Your task to perform on an android device: toggle wifi Image 0: 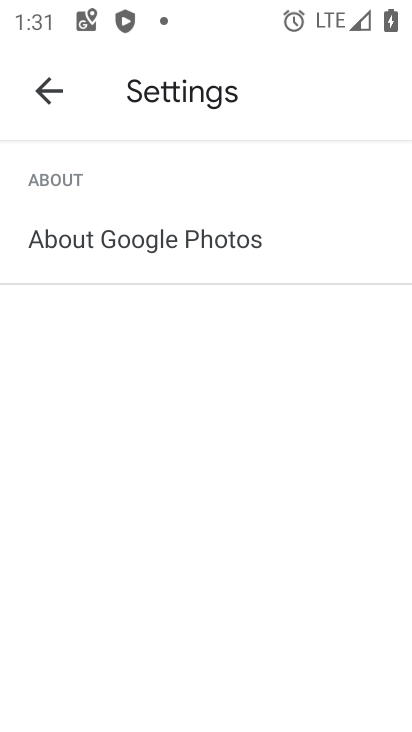
Step 0: press home button
Your task to perform on an android device: toggle wifi Image 1: 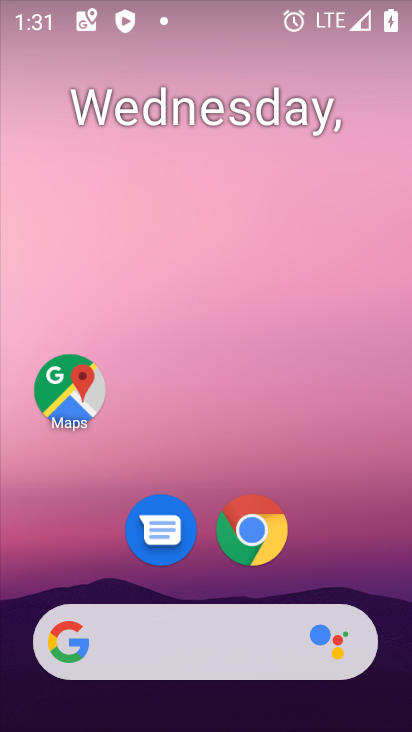
Step 1: drag from (330, 526) to (330, 137)
Your task to perform on an android device: toggle wifi Image 2: 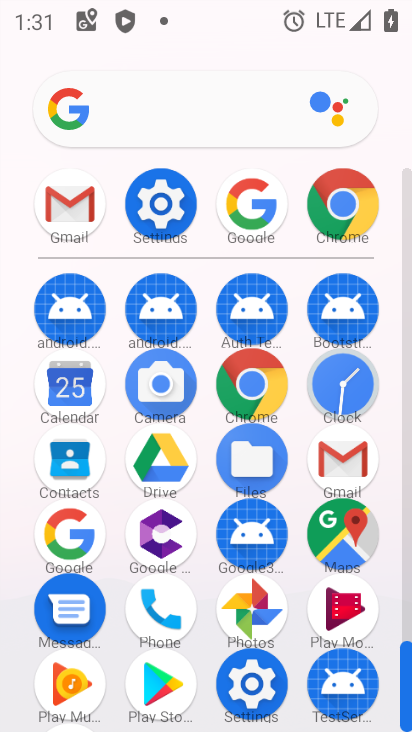
Step 2: click (195, 219)
Your task to perform on an android device: toggle wifi Image 3: 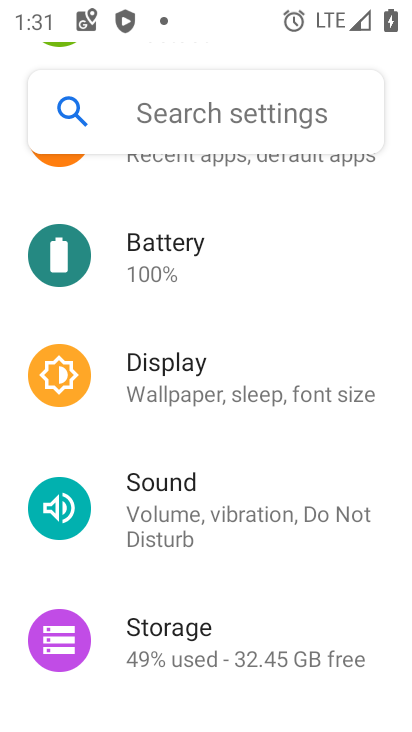
Step 3: drag from (230, 197) to (223, 599)
Your task to perform on an android device: toggle wifi Image 4: 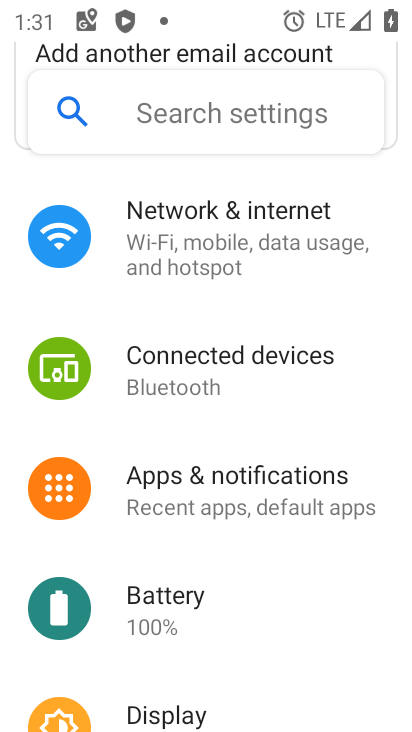
Step 4: drag from (260, 207) to (233, 484)
Your task to perform on an android device: toggle wifi Image 5: 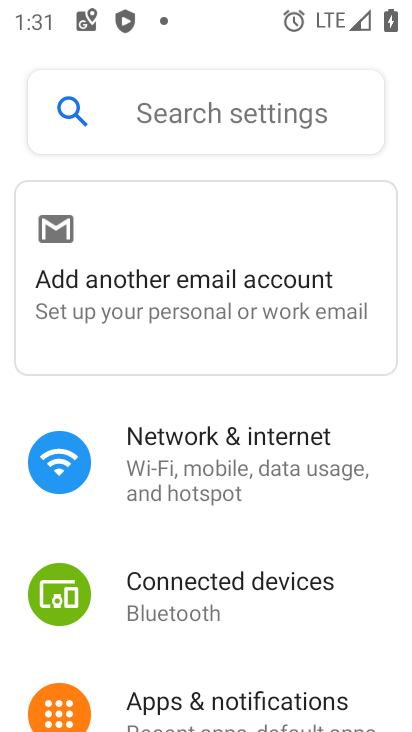
Step 5: click (194, 469)
Your task to perform on an android device: toggle wifi Image 6: 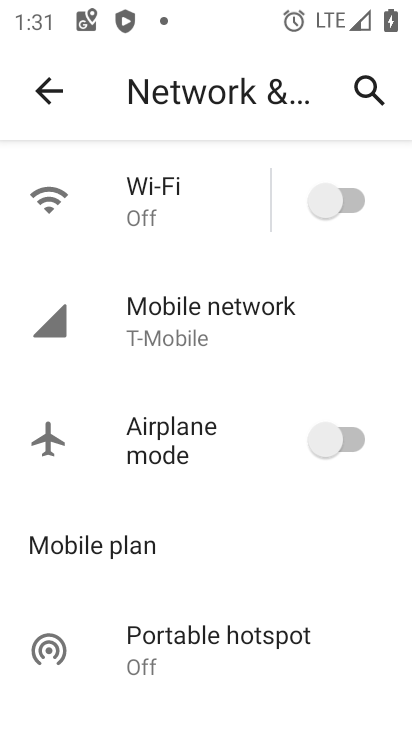
Step 6: click (193, 215)
Your task to perform on an android device: toggle wifi Image 7: 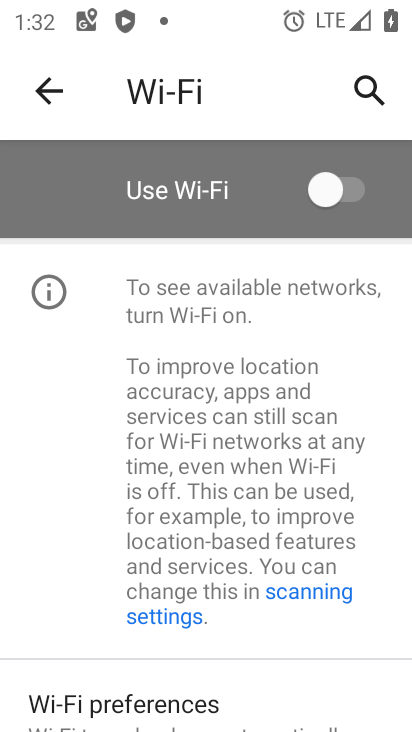
Step 7: task complete